Your task to perform on an android device: allow notifications from all sites in the chrome app Image 0: 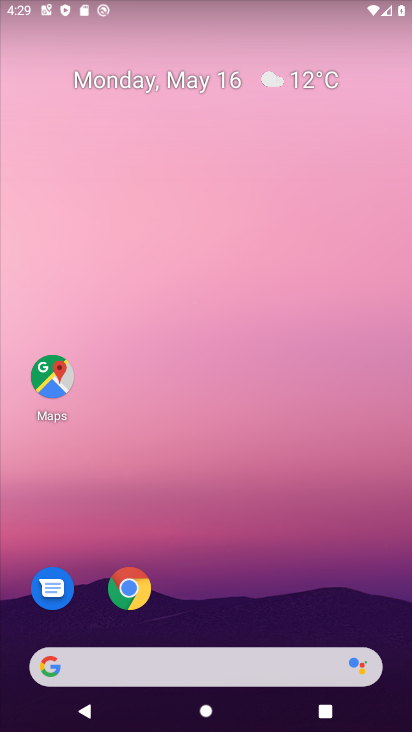
Step 0: click (135, 584)
Your task to perform on an android device: allow notifications from all sites in the chrome app Image 1: 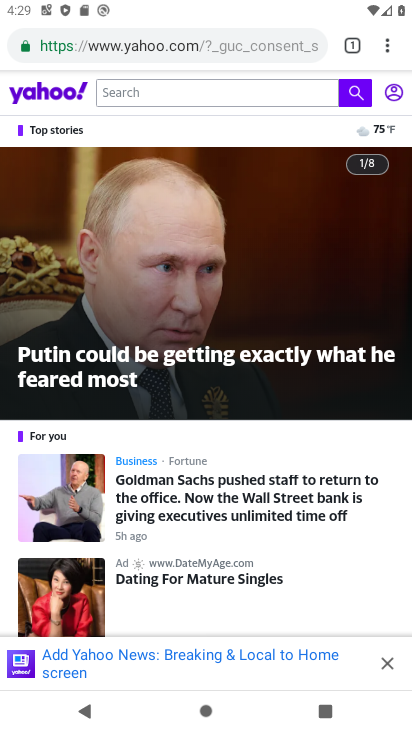
Step 1: drag from (386, 36) to (208, 582)
Your task to perform on an android device: allow notifications from all sites in the chrome app Image 2: 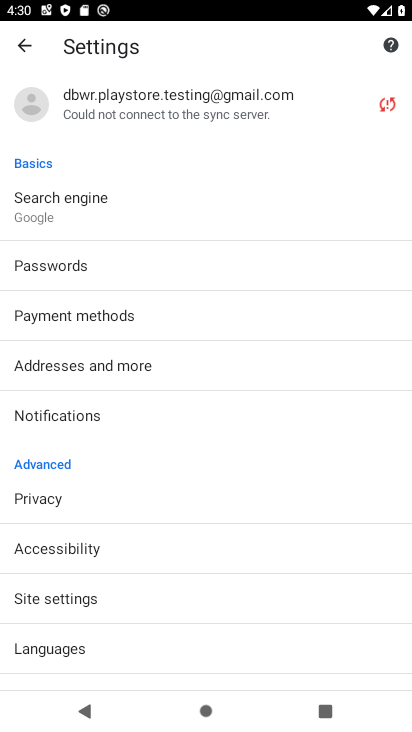
Step 2: drag from (156, 626) to (184, 424)
Your task to perform on an android device: allow notifications from all sites in the chrome app Image 3: 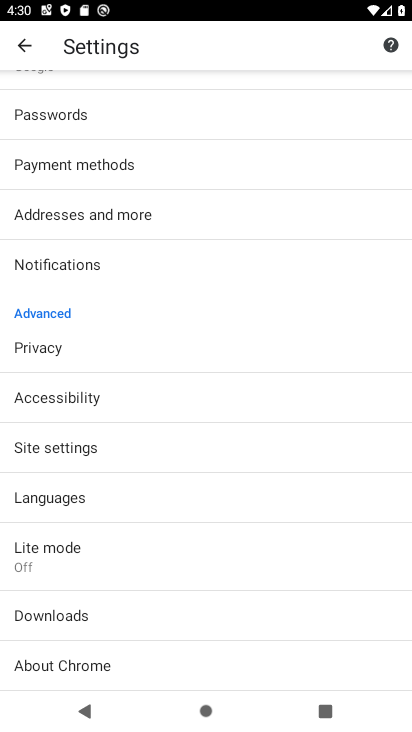
Step 3: click (74, 451)
Your task to perform on an android device: allow notifications from all sites in the chrome app Image 4: 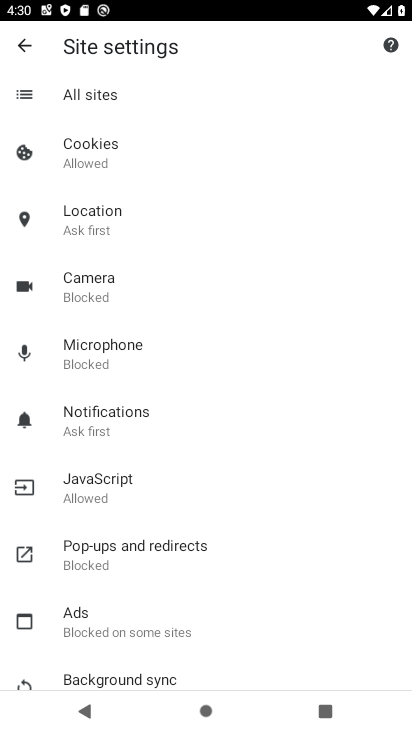
Step 4: click (114, 417)
Your task to perform on an android device: allow notifications from all sites in the chrome app Image 5: 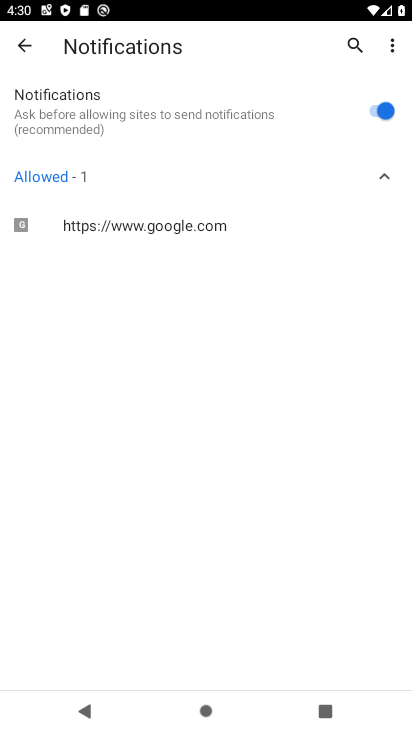
Step 5: task complete